Your task to perform on an android device: What's the weather like in Mexico City? Image 0: 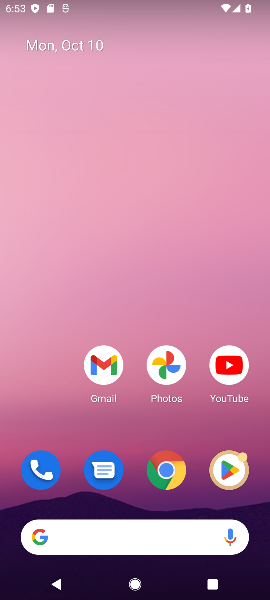
Step 0: click (157, 464)
Your task to perform on an android device: What's the weather like in Mexico City? Image 1: 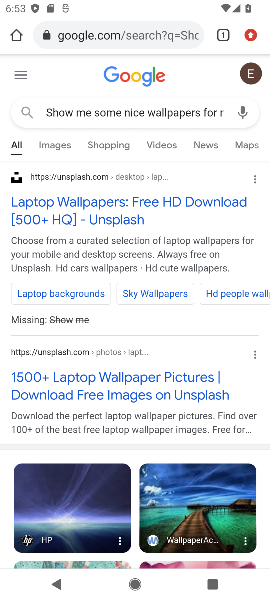
Step 1: click (126, 34)
Your task to perform on an android device: What's the weather like in Mexico City? Image 2: 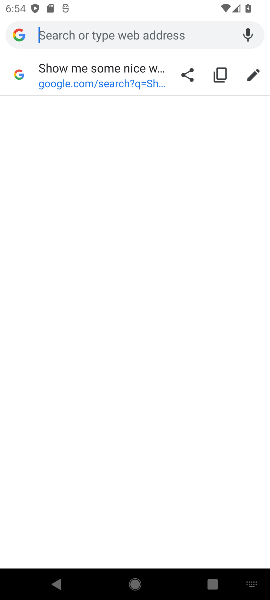
Step 2: type "What's the weather like in Mexico City?"
Your task to perform on an android device: What's the weather like in Mexico City? Image 3: 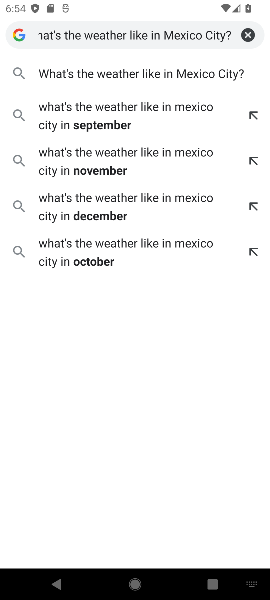
Step 3: click (206, 77)
Your task to perform on an android device: What's the weather like in Mexico City? Image 4: 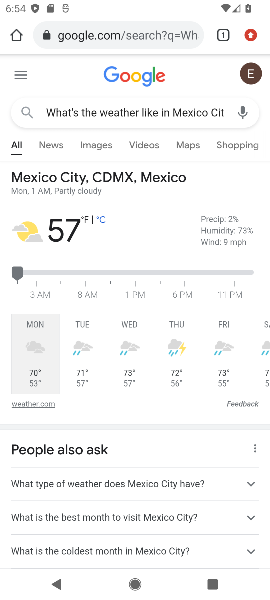
Step 4: task complete